Your task to perform on an android device: Open Google Maps Image 0: 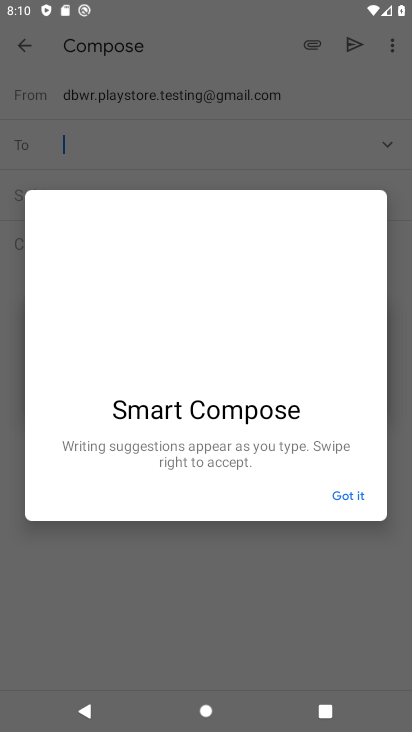
Step 0: press home button
Your task to perform on an android device: Open Google Maps Image 1: 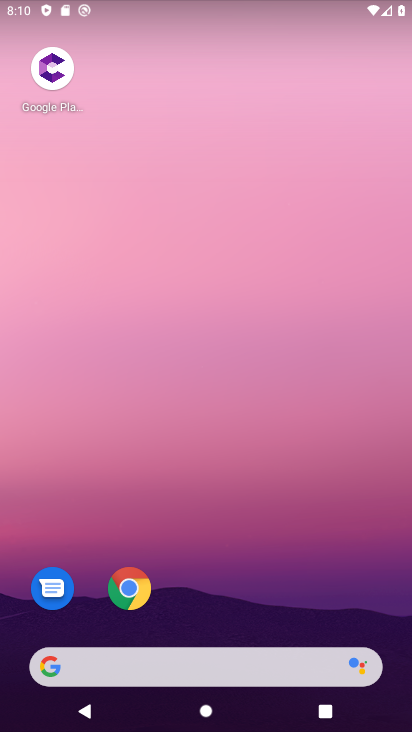
Step 1: click (356, 618)
Your task to perform on an android device: Open Google Maps Image 2: 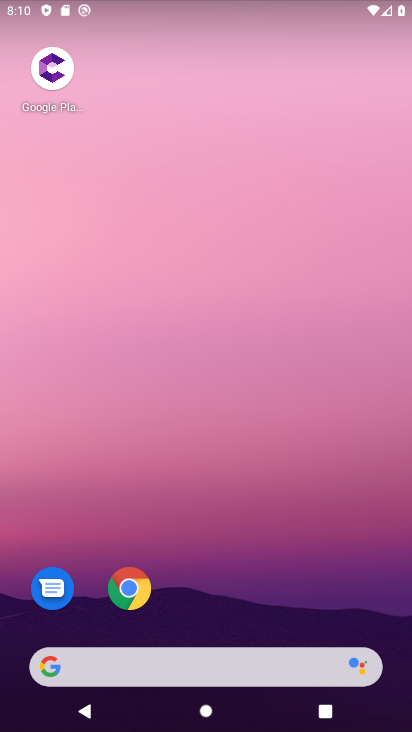
Step 2: drag from (16, 367) to (409, 380)
Your task to perform on an android device: Open Google Maps Image 3: 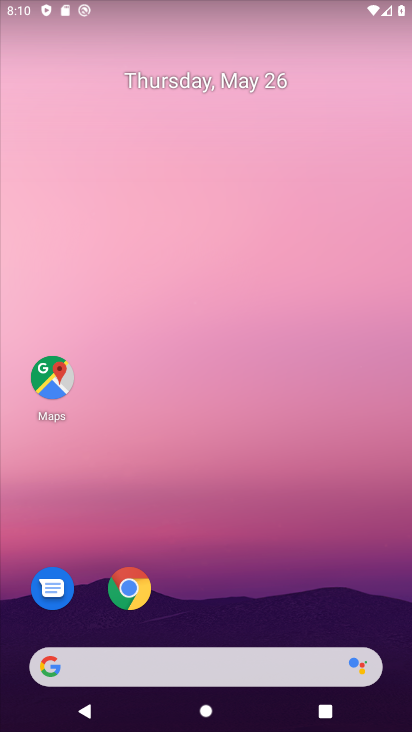
Step 3: click (55, 378)
Your task to perform on an android device: Open Google Maps Image 4: 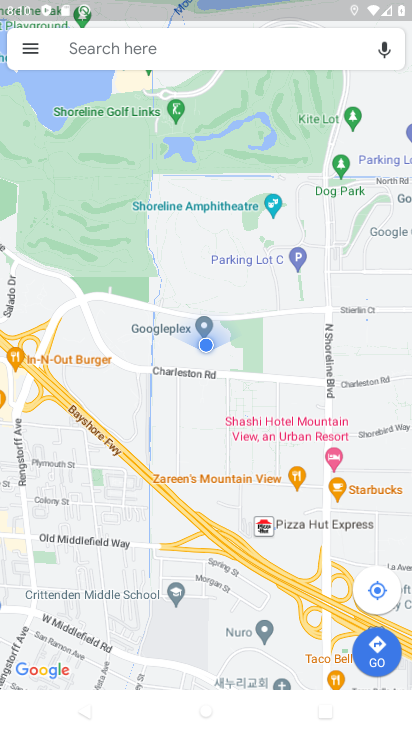
Step 4: task complete